Your task to perform on an android device: Open Google Chrome and open the bookmarks view Image 0: 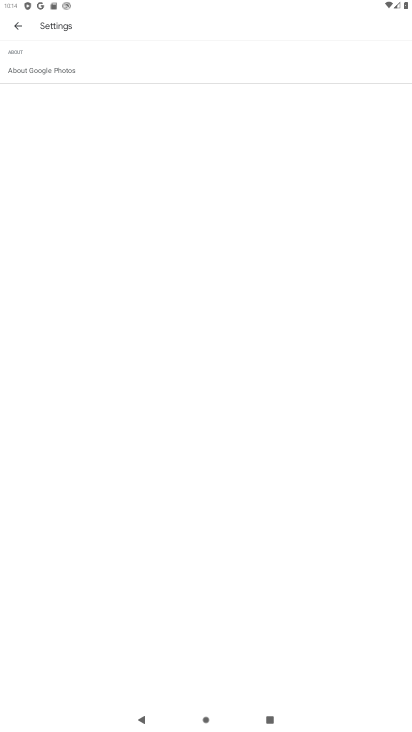
Step 0: press home button
Your task to perform on an android device: Open Google Chrome and open the bookmarks view Image 1: 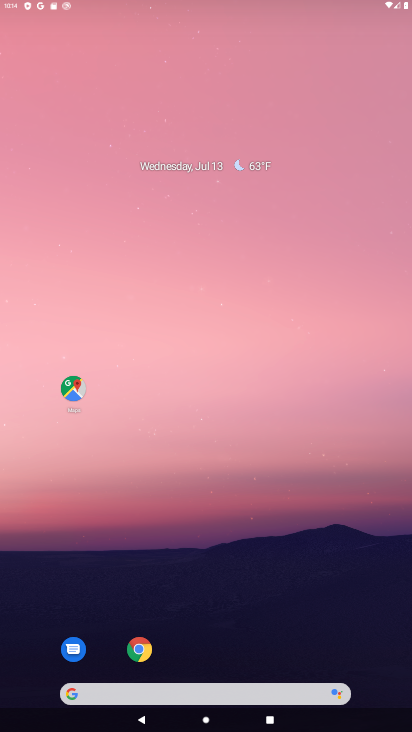
Step 1: drag from (225, 626) to (271, 263)
Your task to perform on an android device: Open Google Chrome and open the bookmarks view Image 2: 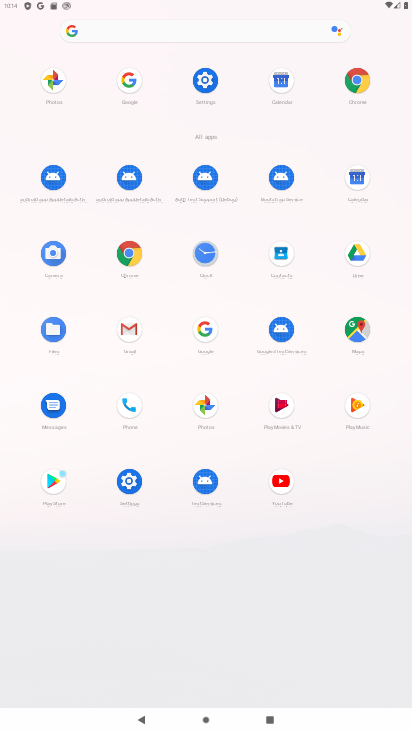
Step 2: click (364, 69)
Your task to perform on an android device: Open Google Chrome and open the bookmarks view Image 3: 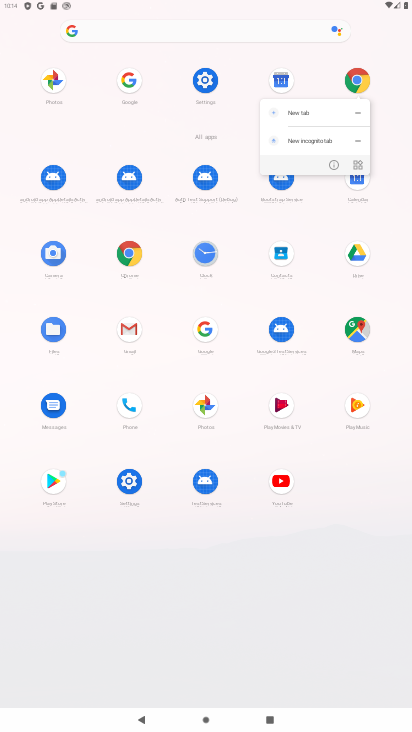
Step 3: click (356, 73)
Your task to perform on an android device: Open Google Chrome and open the bookmarks view Image 4: 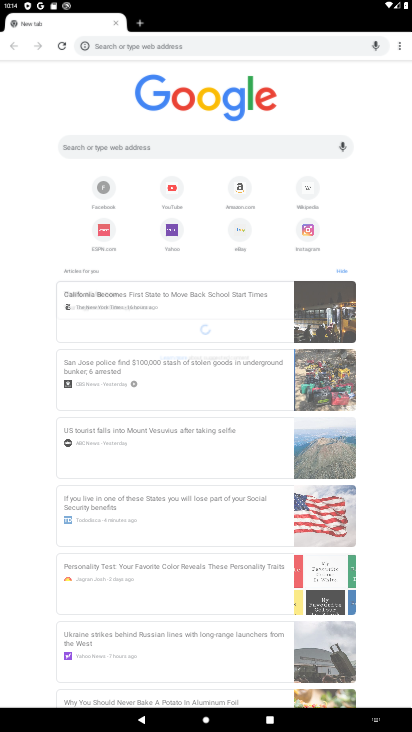
Step 4: click (406, 40)
Your task to perform on an android device: Open Google Chrome and open the bookmarks view Image 5: 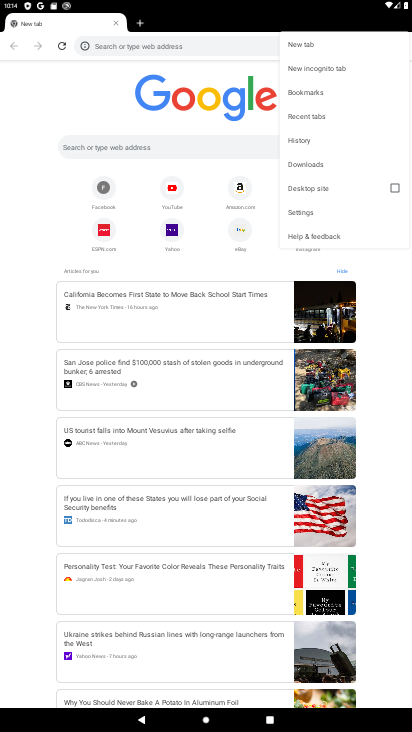
Step 5: click (313, 92)
Your task to perform on an android device: Open Google Chrome and open the bookmarks view Image 6: 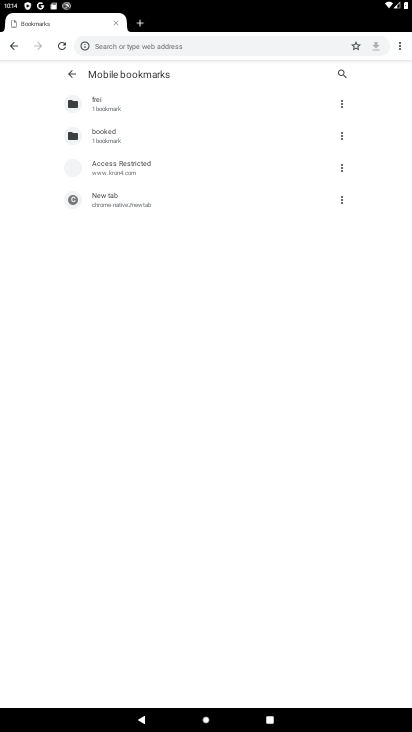
Step 6: task complete